Your task to perform on an android device: Search for rayovac triple a on amazon, select the first entry, add it to the cart, then select checkout. Image 0: 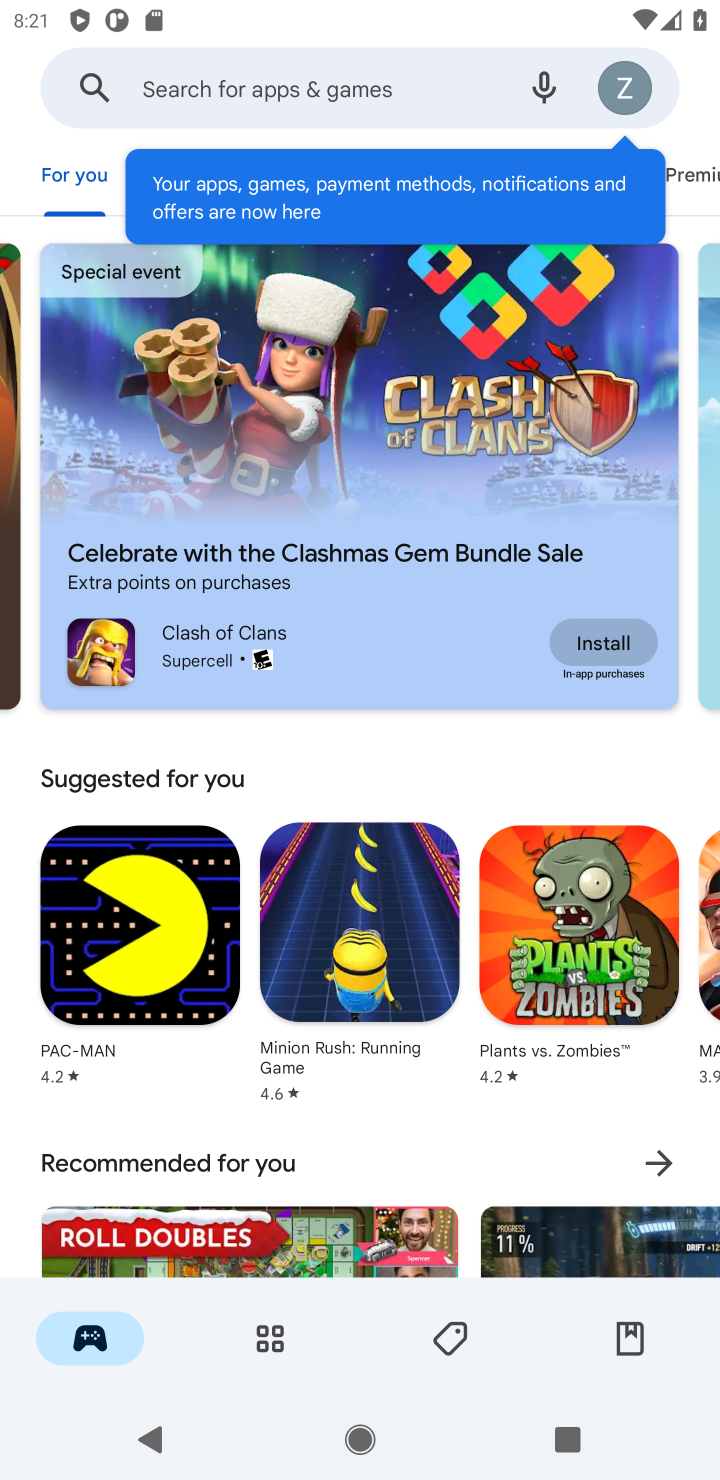
Step 0: press home button
Your task to perform on an android device: Search for rayovac triple a on amazon, select the first entry, add it to the cart, then select checkout. Image 1: 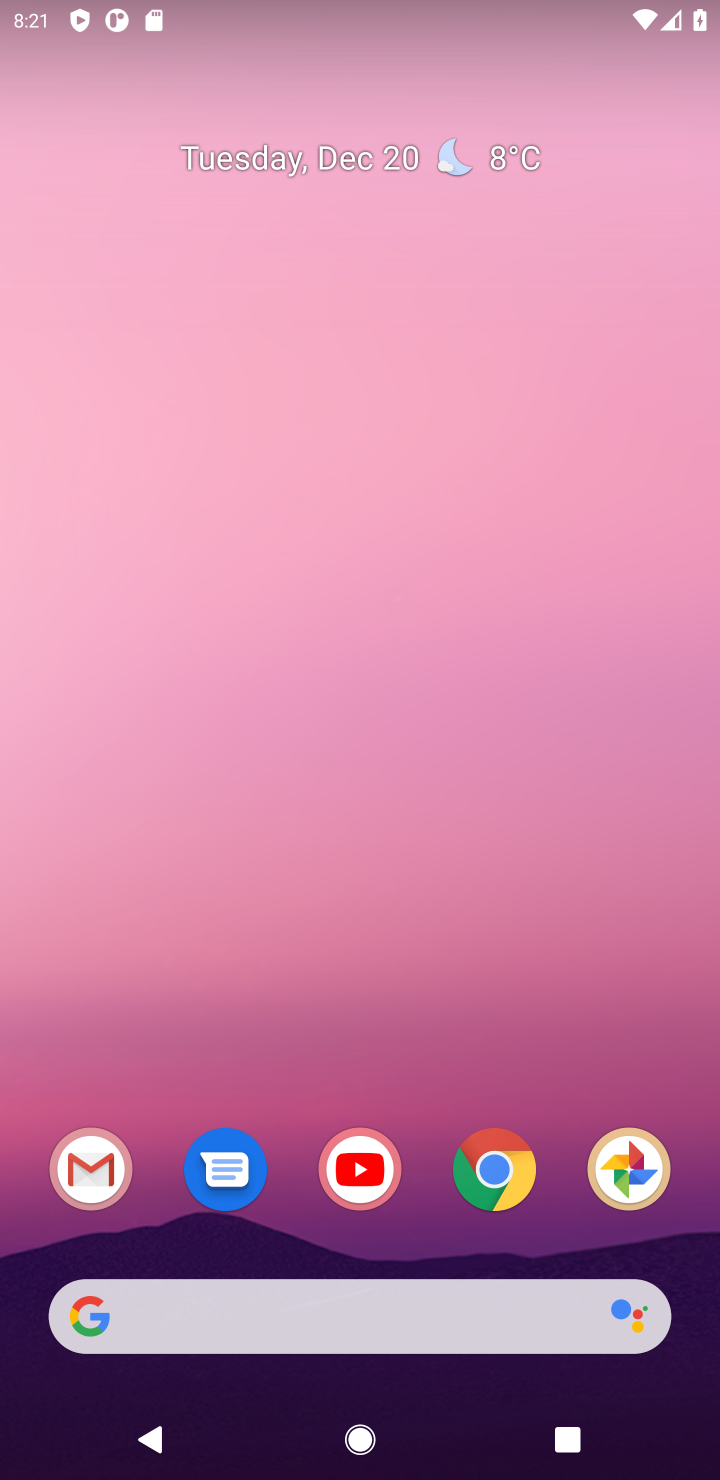
Step 1: click (510, 1187)
Your task to perform on an android device: Search for rayovac triple a on amazon, select the first entry, add it to the cart, then select checkout. Image 2: 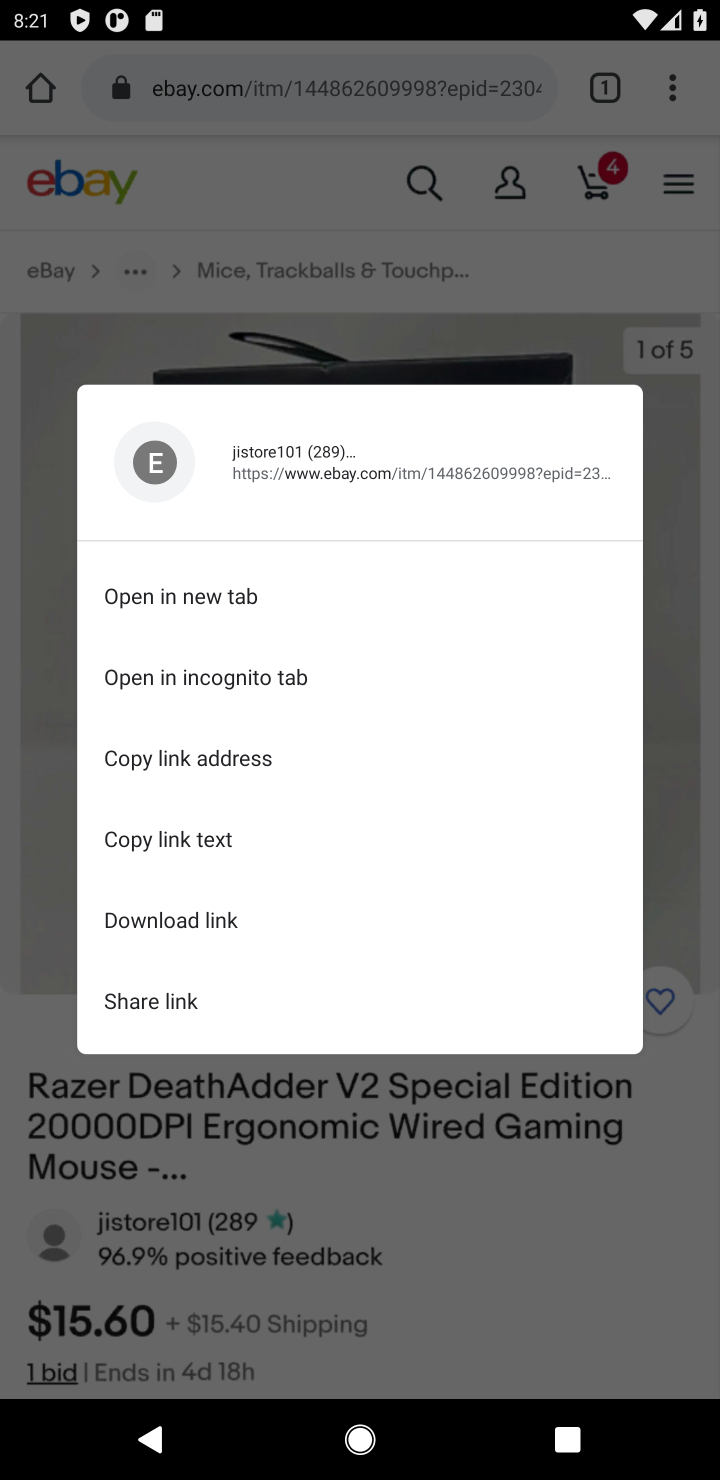
Step 2: click (222, 85)
Your task to perform on an android device: Search for rayovac triple a on amazon, select the first entry, add it to the cart, then select checkout. Image 3: 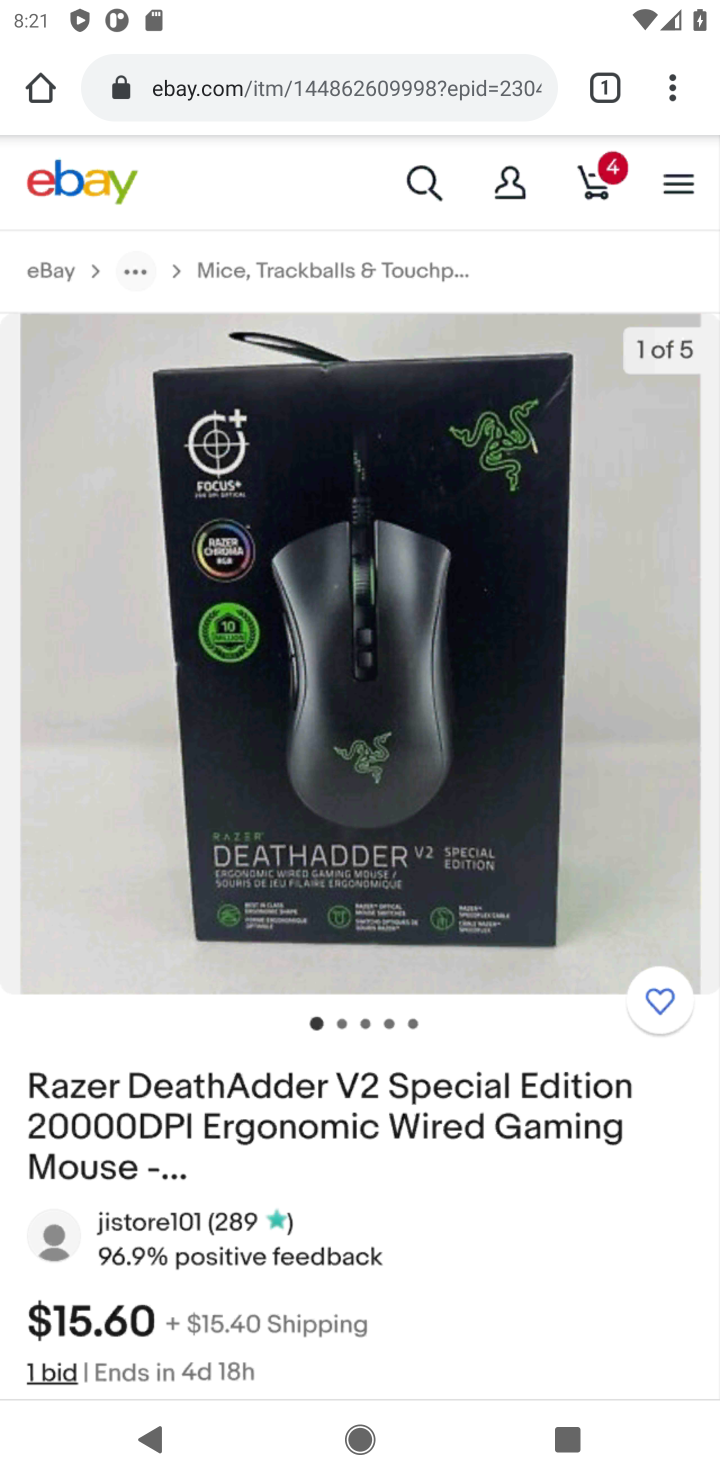
Step 3: click (222, 85)
Your task to perform on an android device: Search for rayovac triple a on amazon, select the first entry, add it to the cart, then select checkout. Image 4: 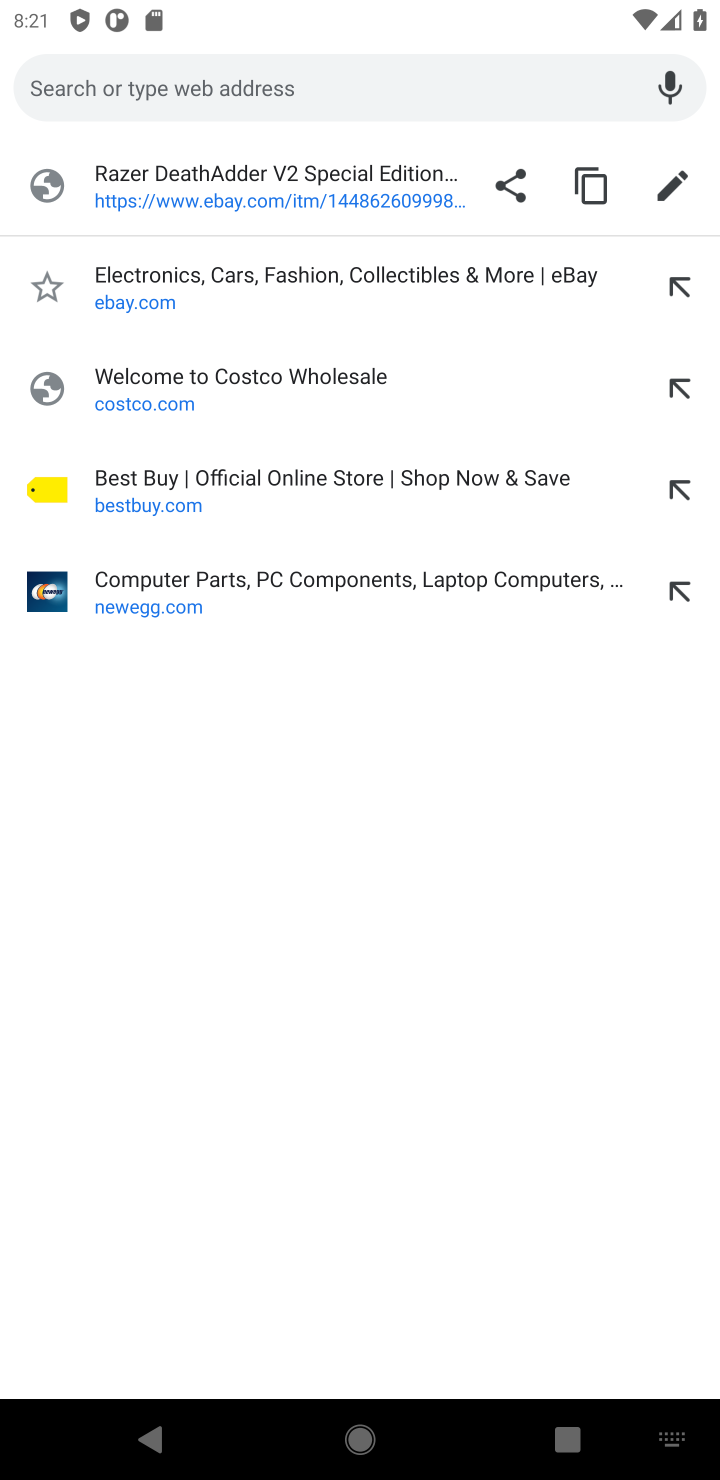
Step 4: type "amazon"
Your task to perform on an android device: Search for rayovac triple a on amazon, select the first entry, add it to the cart, then select checkout. Image 5: 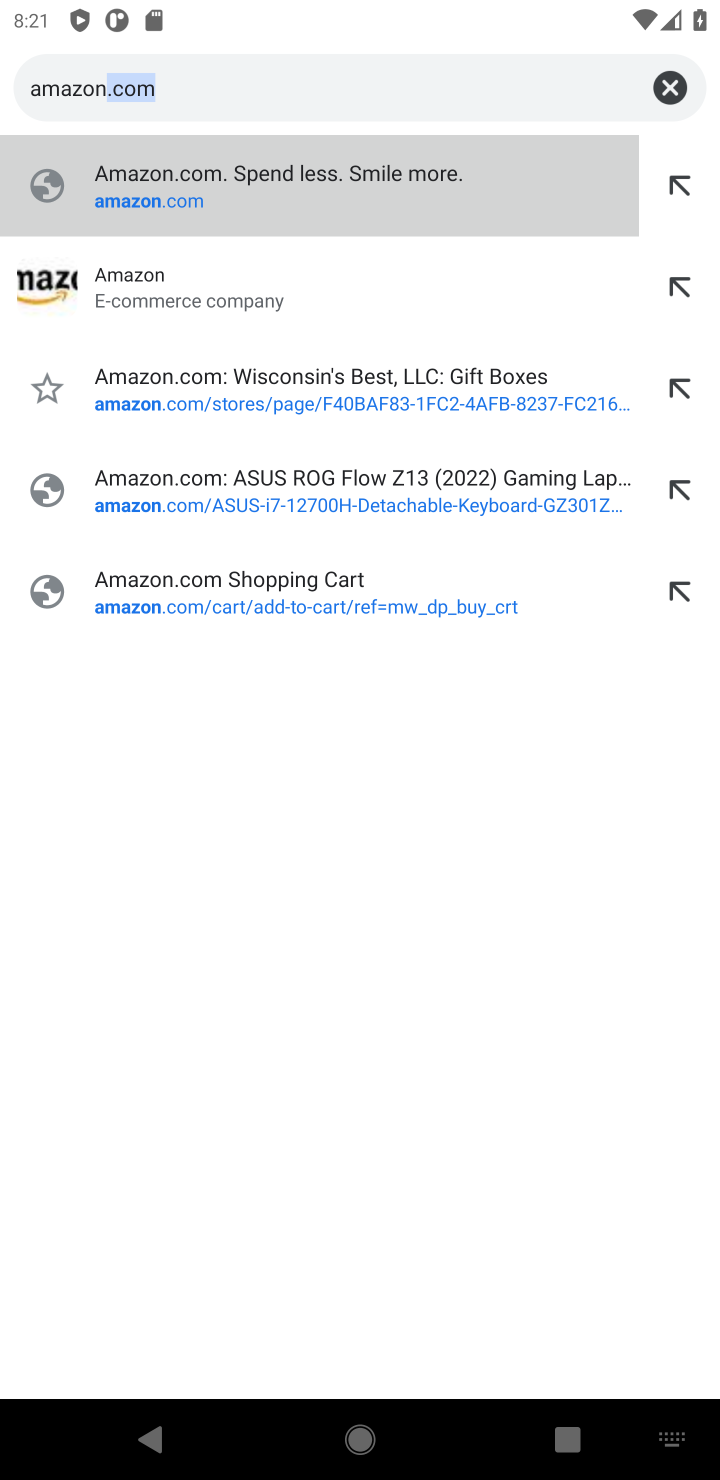
Step 5: click (235, 213)
Your task to perform on an android device: Search for rayovac triple a on amazon, select the first entry, add it to the cart, then select checkout. Image 6: 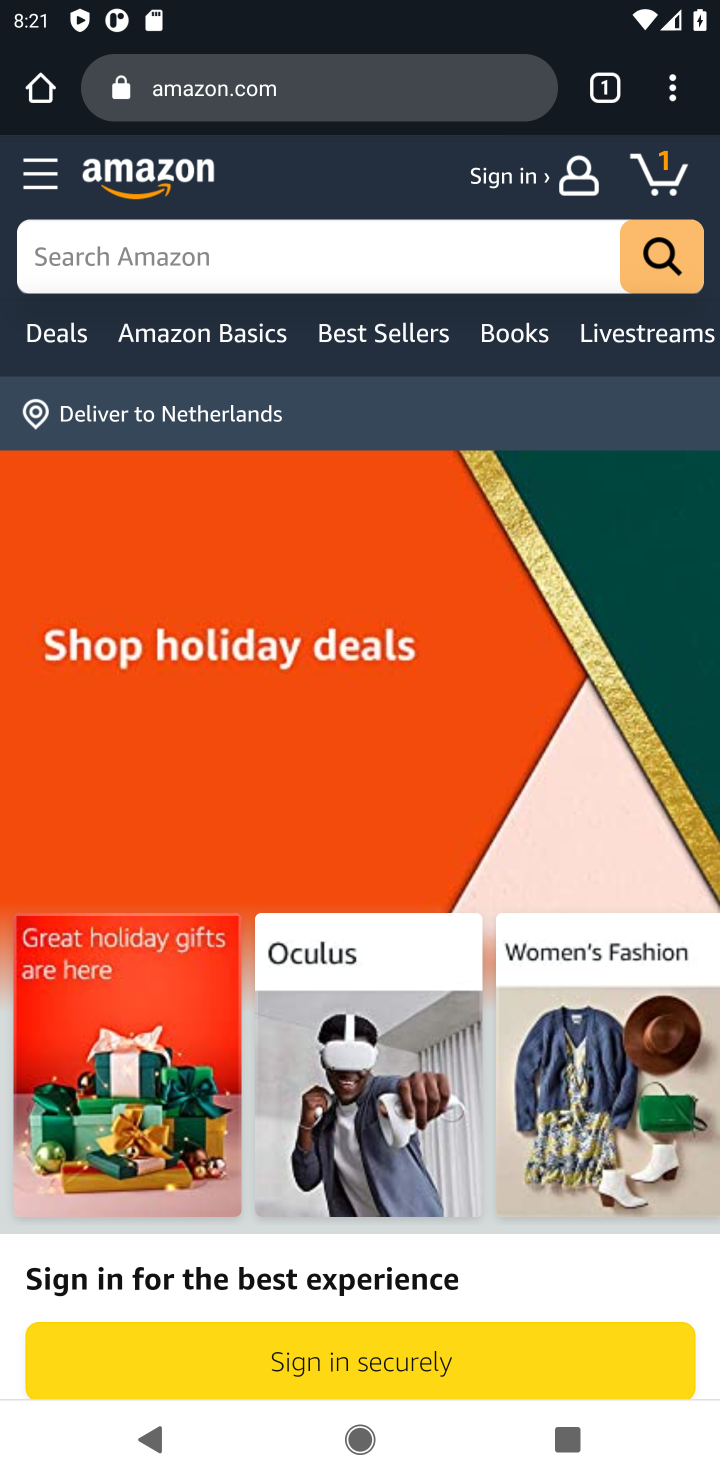
Step 6: click (189, 246)
Your task to perform on an android device: Search for rayovac triple a on amazon, select the first entry, add it to the cart, then select checkout. Image 7: 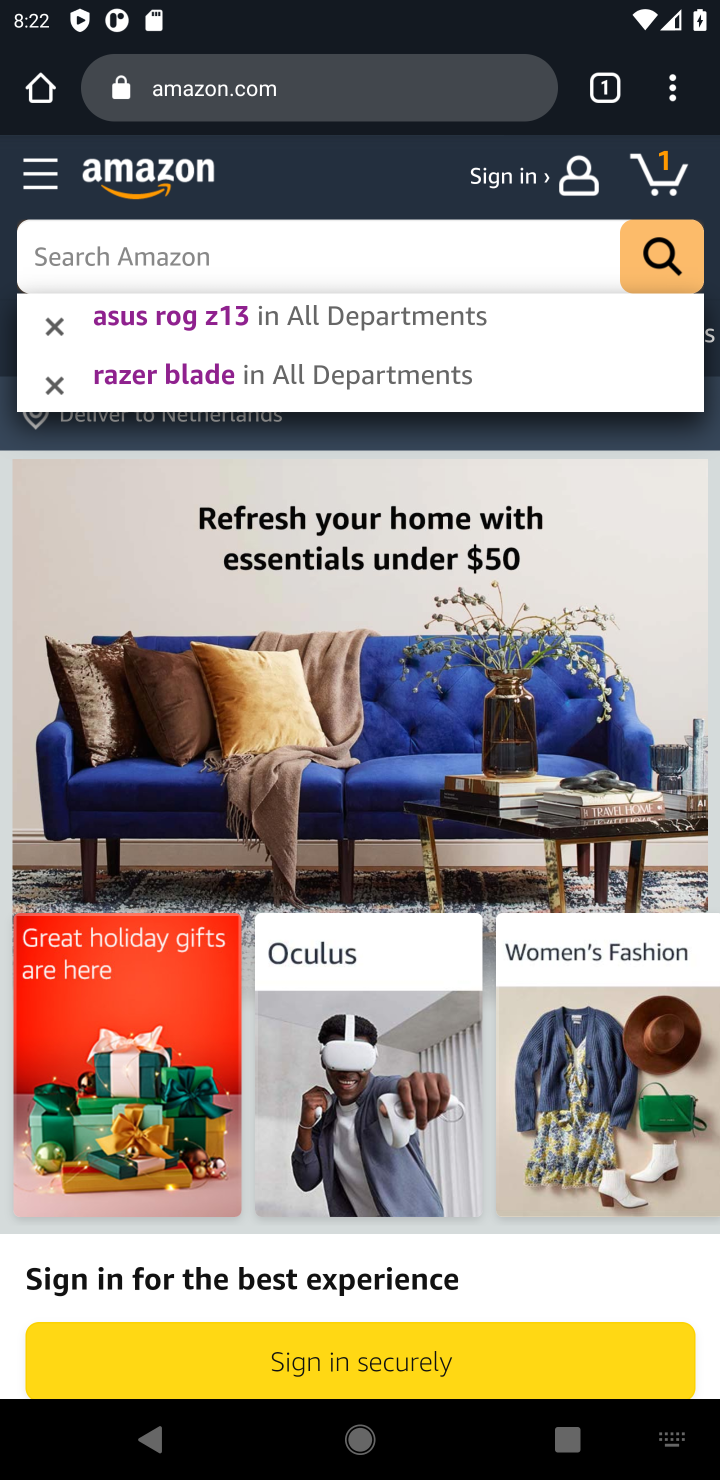
Step 7: type "rayovac"
Your task to perform on an android device: Search for rayovac triple a on amazon, select the first entry, add it to the cart, then select checkout. Image 8: 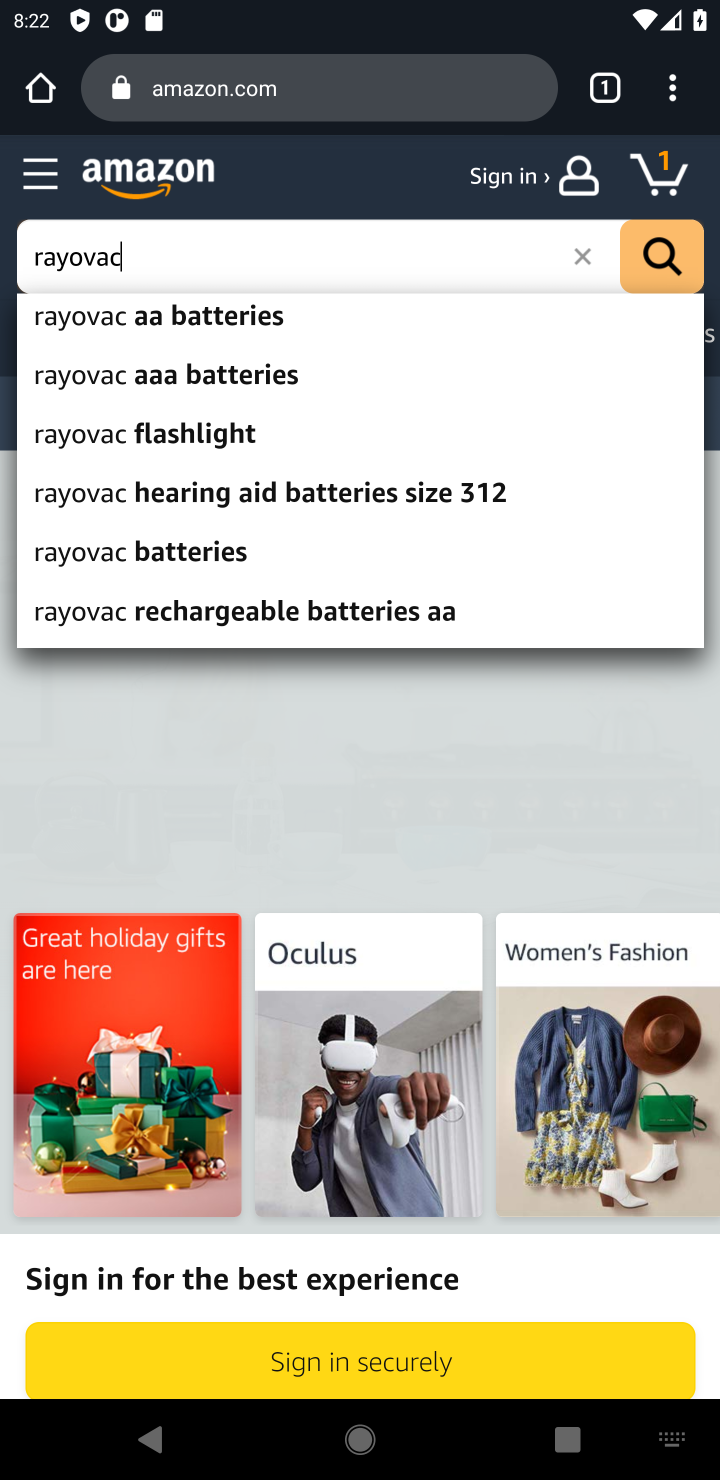
Step 8: click (277, 371)
Your task to perform on an android device: Search for rayovac triple a on amazon, select the first entry, add it to the cart, then select checkout. Image 9: 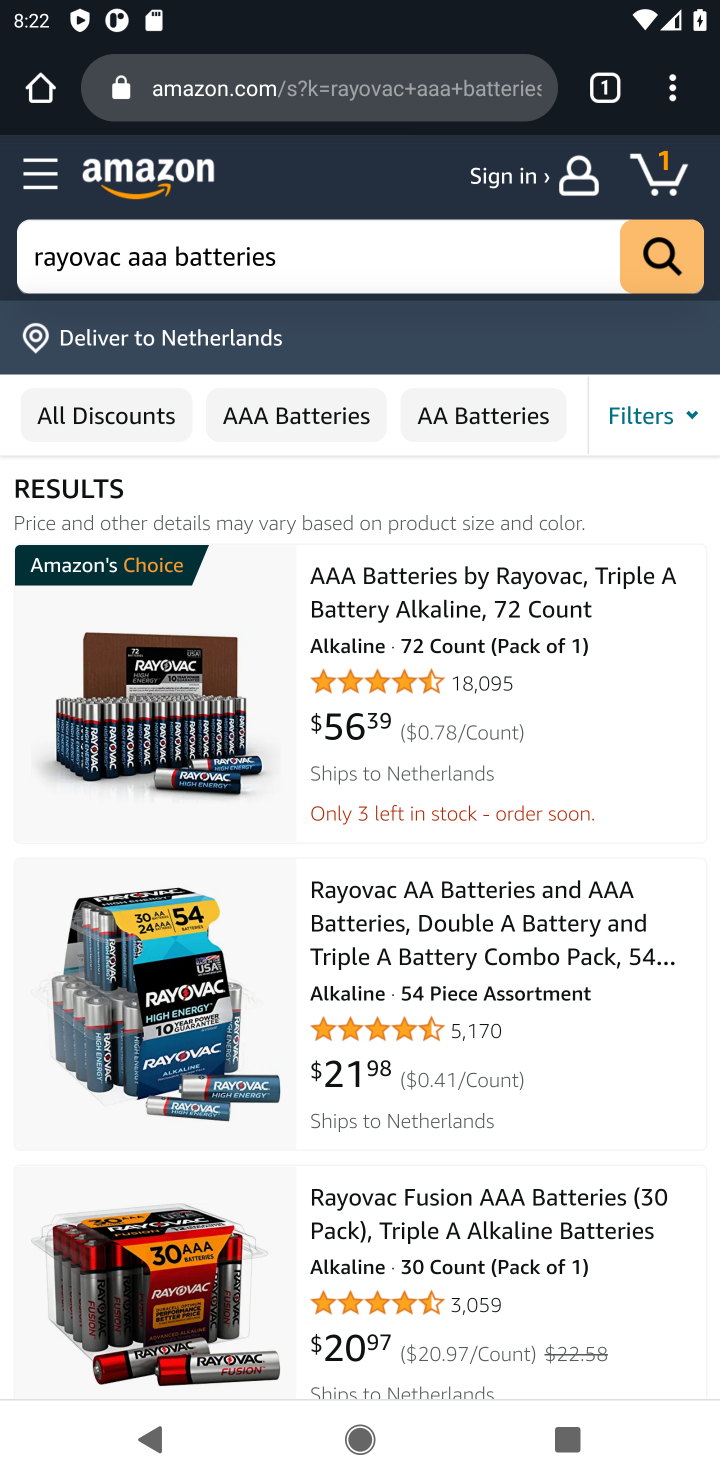
Step 9: click (413, 637)
Your task to perform on an android device: Search for rayovac triple a on amazon, select the first entry, add it to the cart, then select checkout. Image 10: 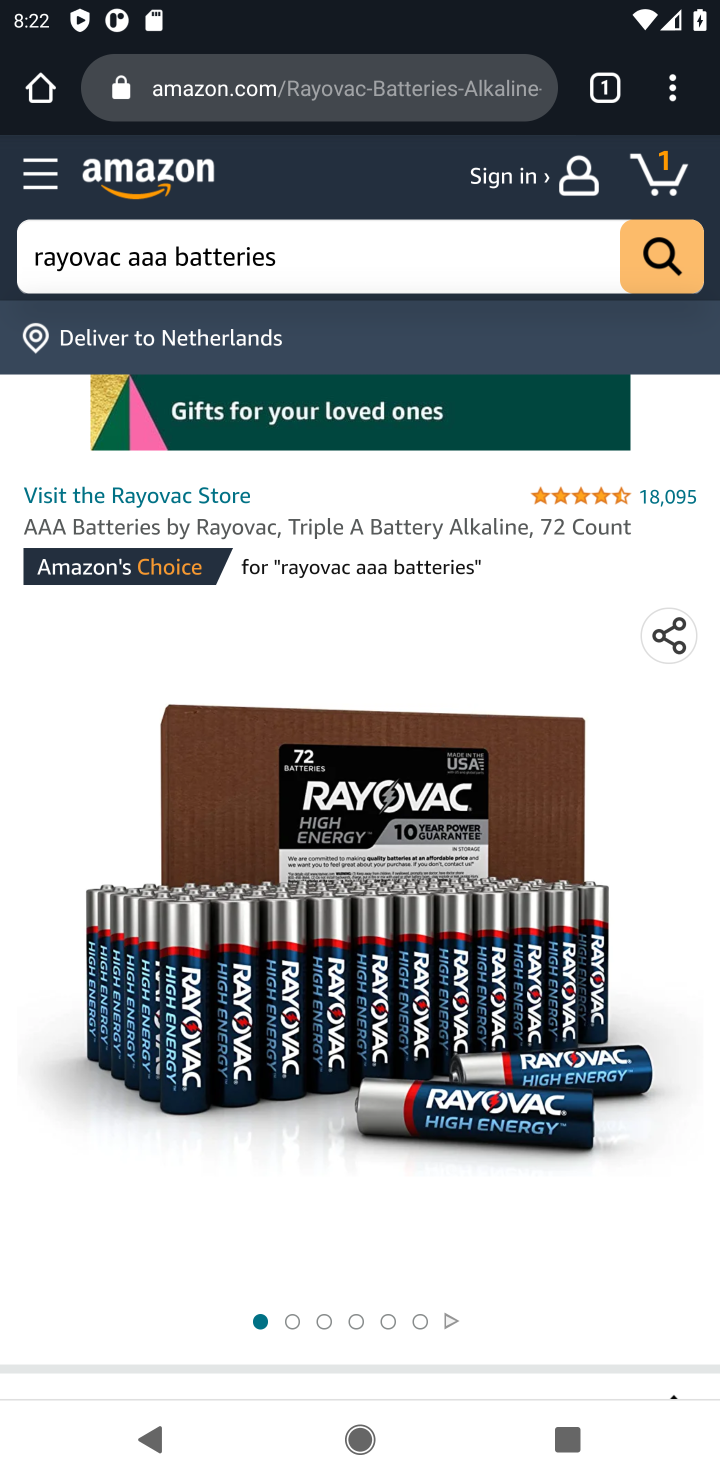
Step 10: drag from (599, 1229) to (552, 576)
Your task to perform on an android device: Search for rayovac triple a on amazon, select the first entry, add it to the cart, then select checkout. Image 11: 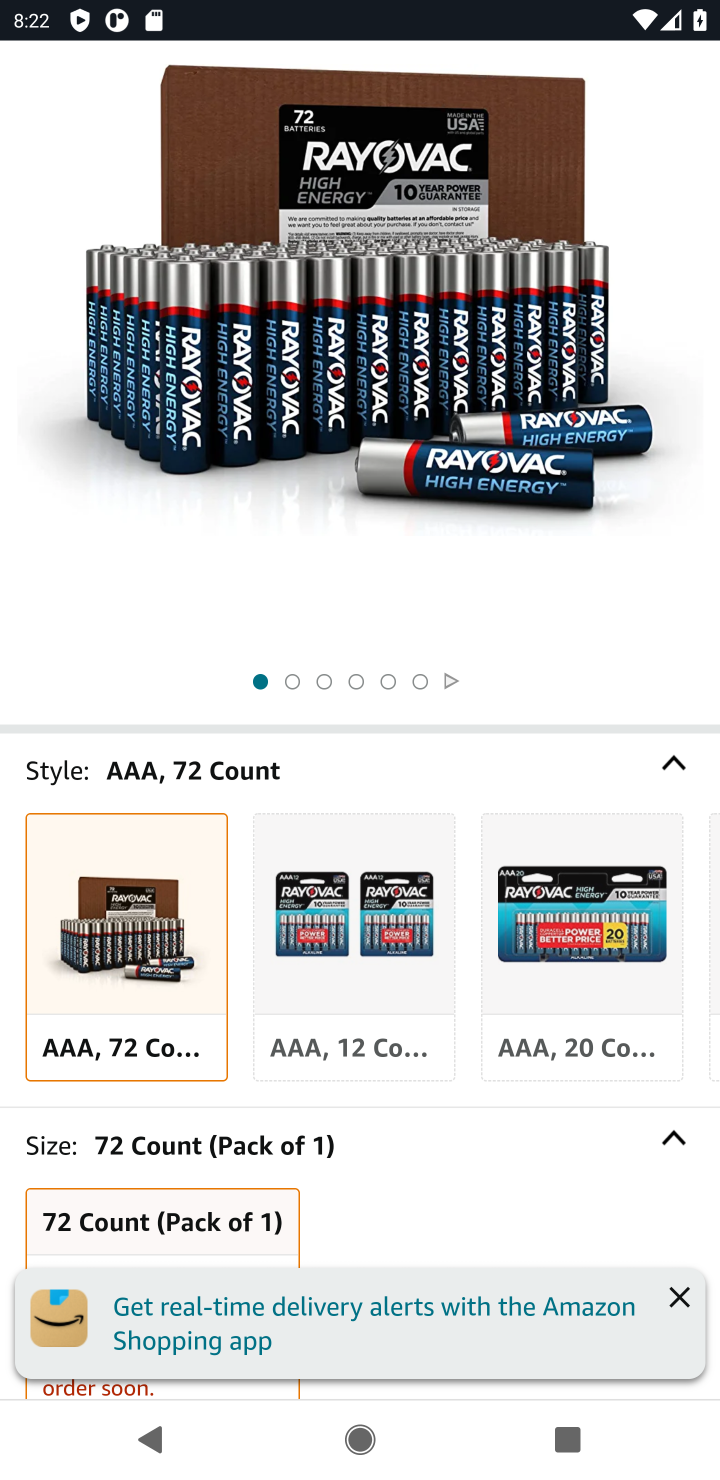
Step 11: drag from (447, 1259) to (436, 534)
Your task to perform on an android device: Search for rayovac triple a on amazon, select the first entry, add it to the cart, then select checkout. Image 12: 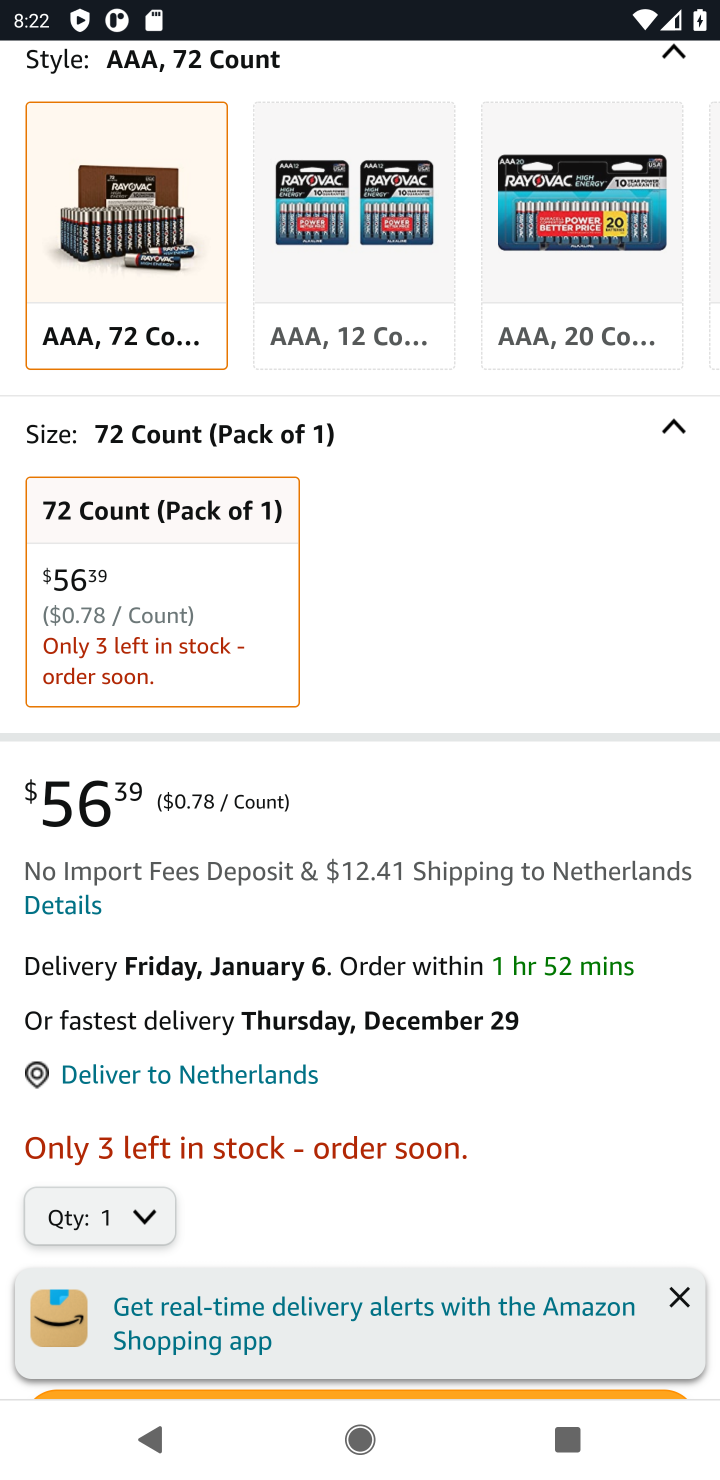
Step 12: drag from (428, 1194) to (320, 567)
Your task to perform on an android device: Search for rayovac triple a on amazon, select the first entry, add it to the cart, then select checkout. Image 13: 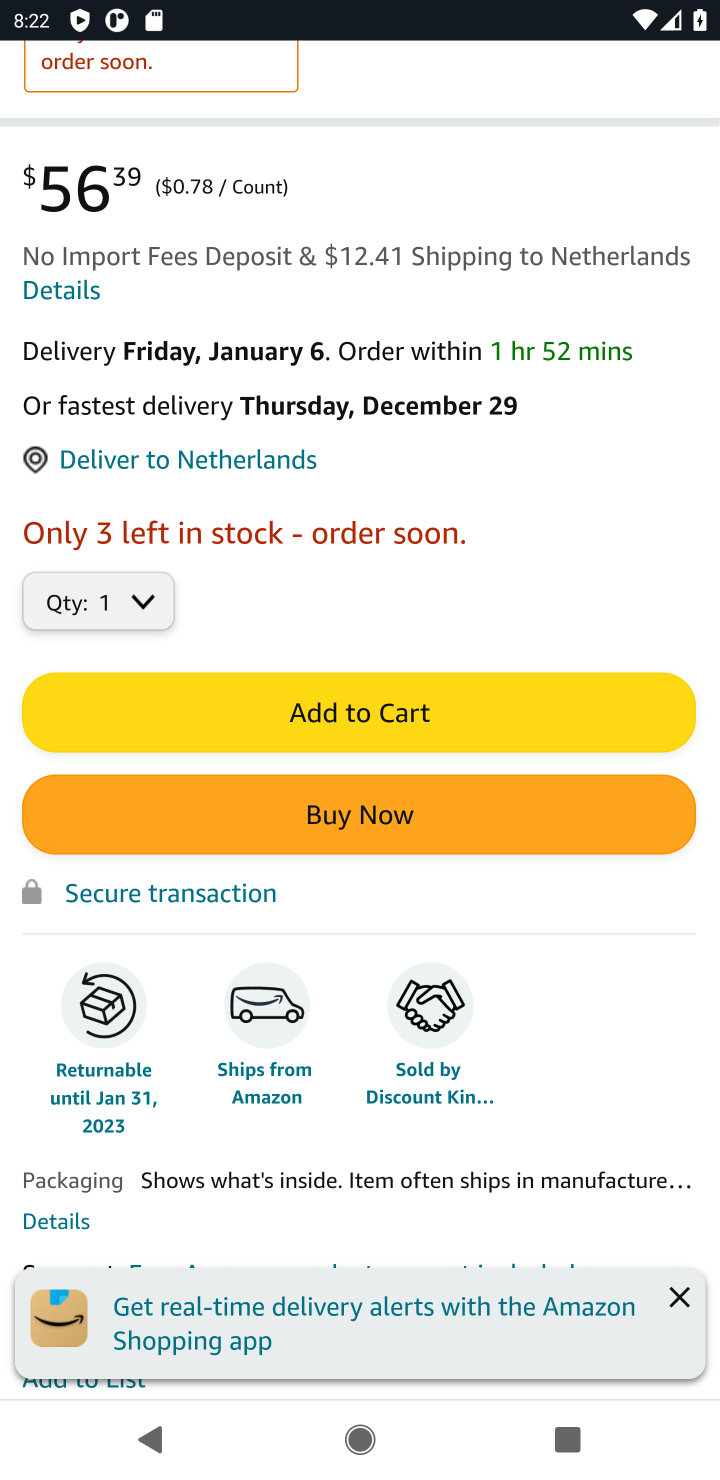
Step 13: click (478, 689)
Your task to perform on an android device: Search for rayovac triple a on amazon, select the first entry, add it to the cart, then select checkout. Image 14: 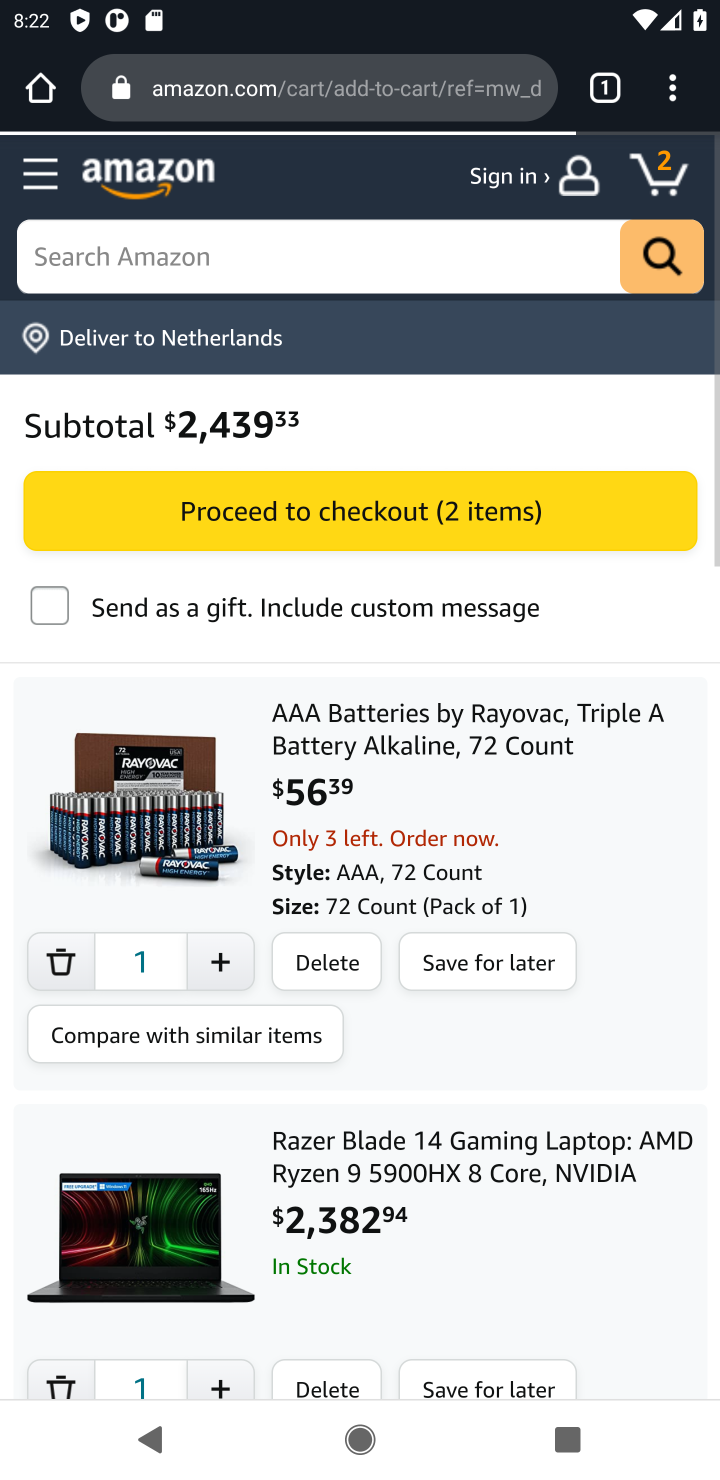
Step 14: task complete